Your task to perform on an android device: open app "File Manager" Image 0: 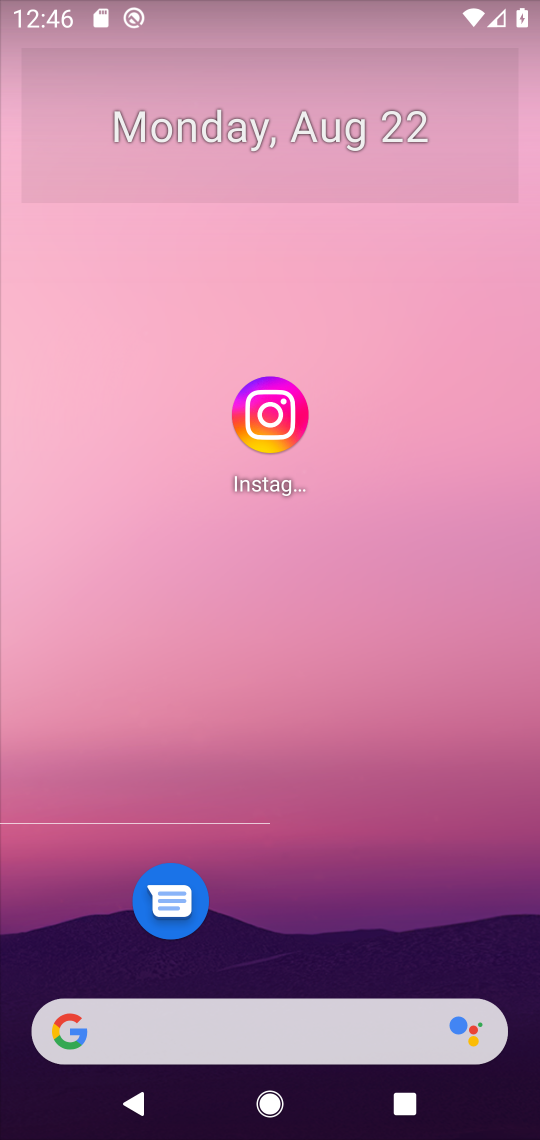
Step 0: drag from (386, 946) to (416, 119)
Your task to perform on an android device: open app "File Manager" Image 1: 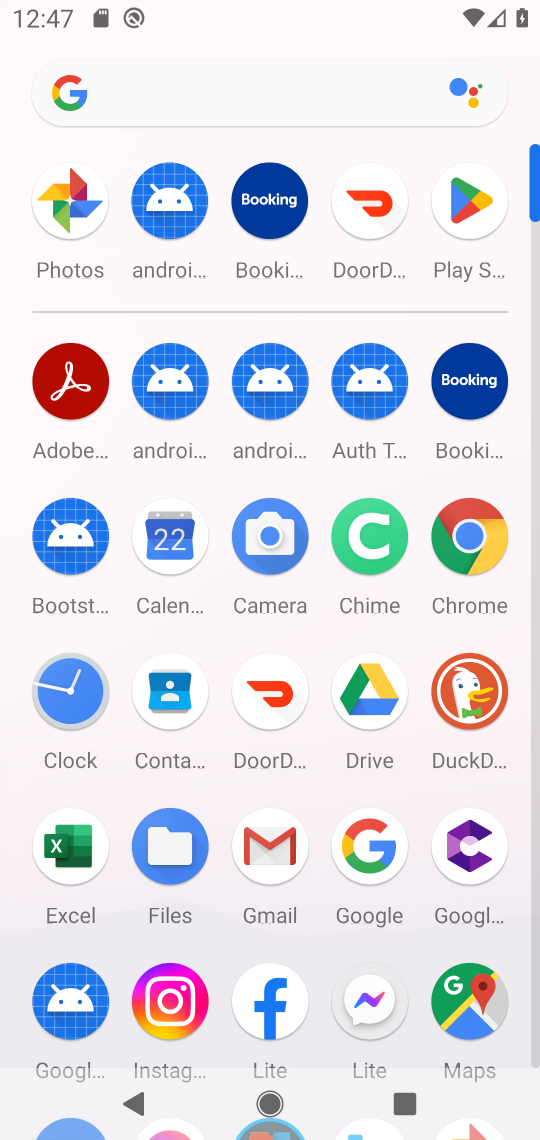
Step 1: click (437, 186)
Your task to perform on an android device: open app "File Manager" Image 2: 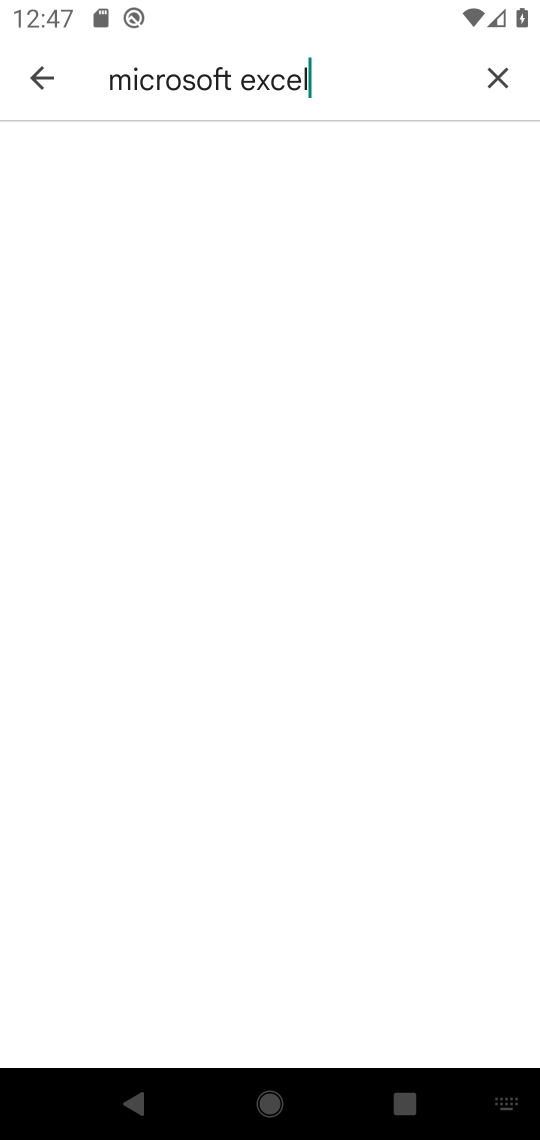
Step 2: click (486, 76)
Your task to perform on an android device: open app "File Manager" Image 3: 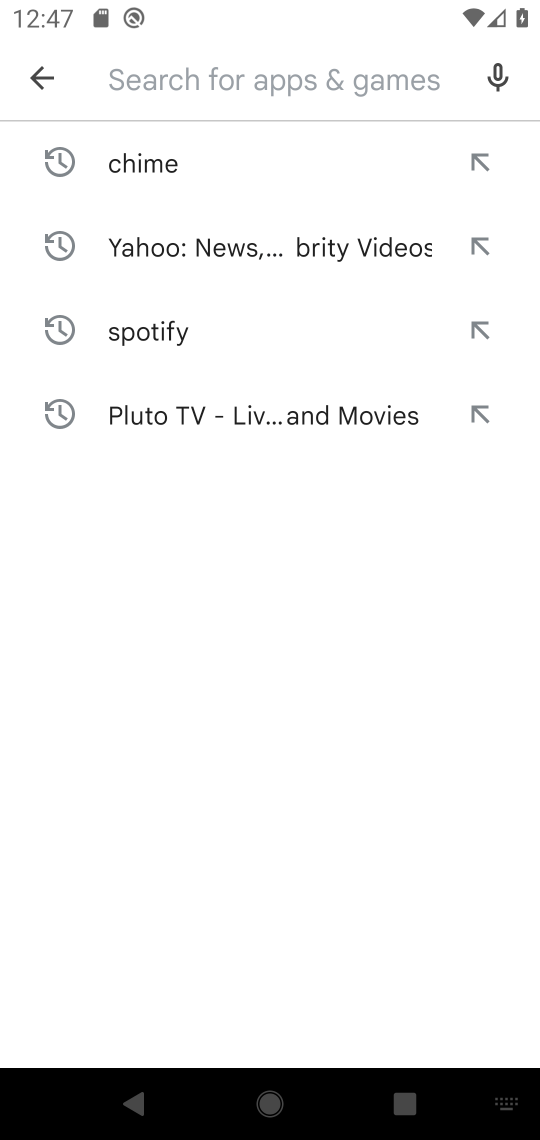
Step 3: type "file manger"
Your task to perform on an android device: open app "File Manager" Image 4: 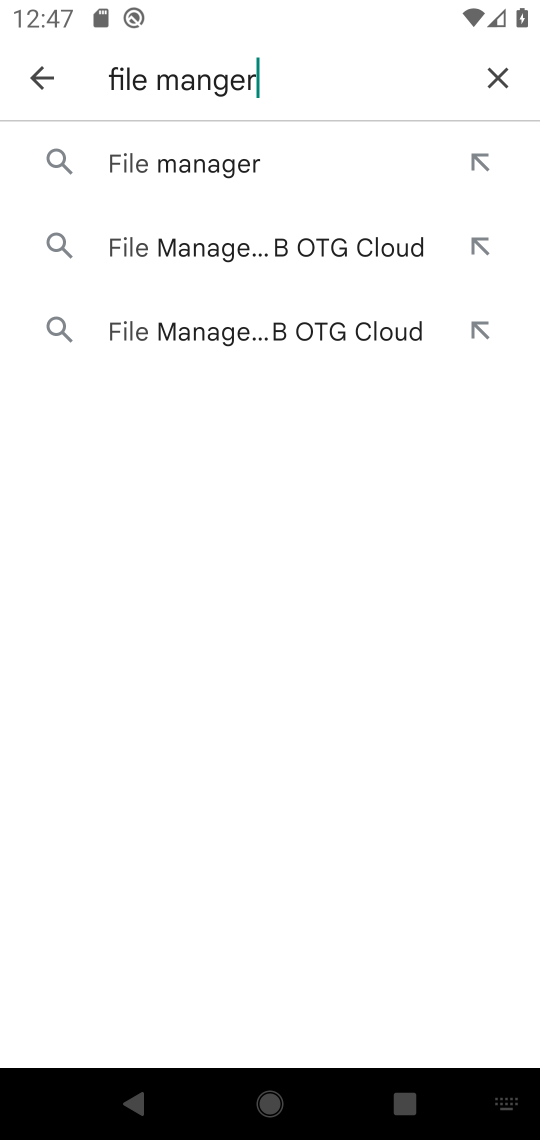
Step 4: click (235, 134)
Your task to perform on an android device: open app "File Manager" Image 5: 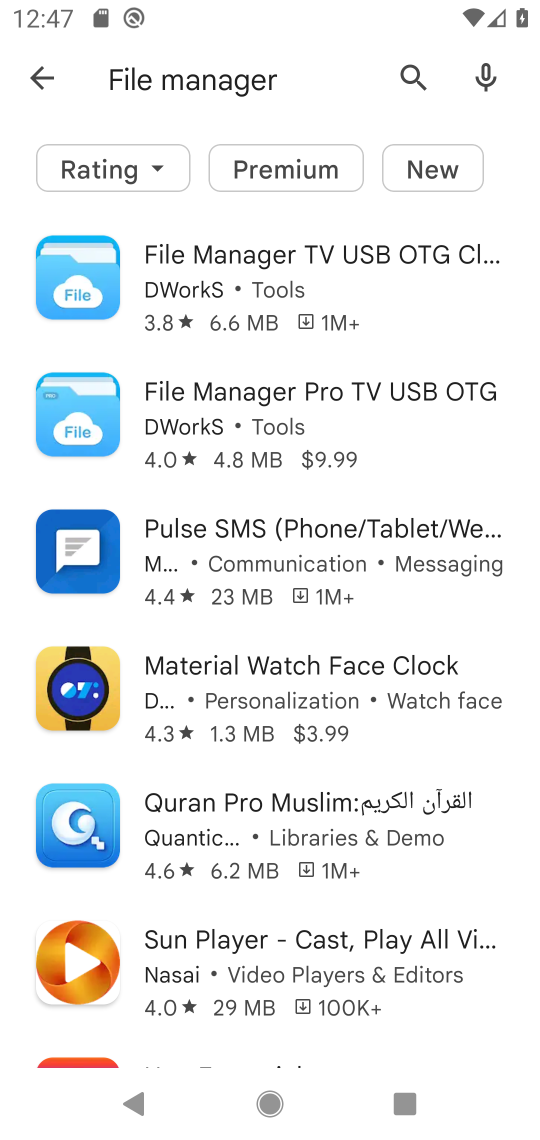
Step 5: click (323, 260)
Your task to perform on an android device: open app "File Manager" Image 6: 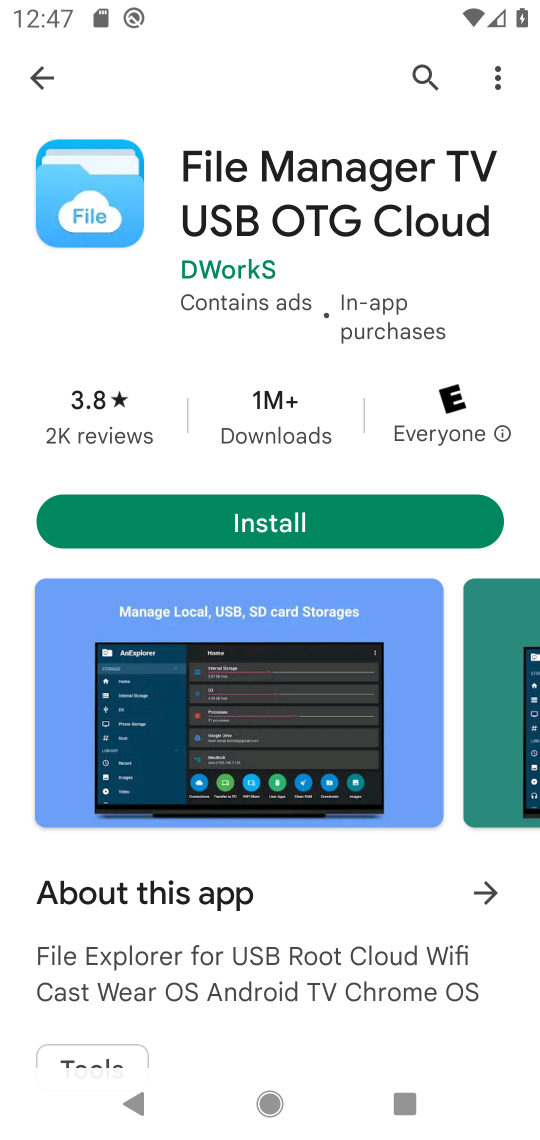
Step 6: click (318, 526)
Your task to perform on an android device: open app "File Manager" Image 7: 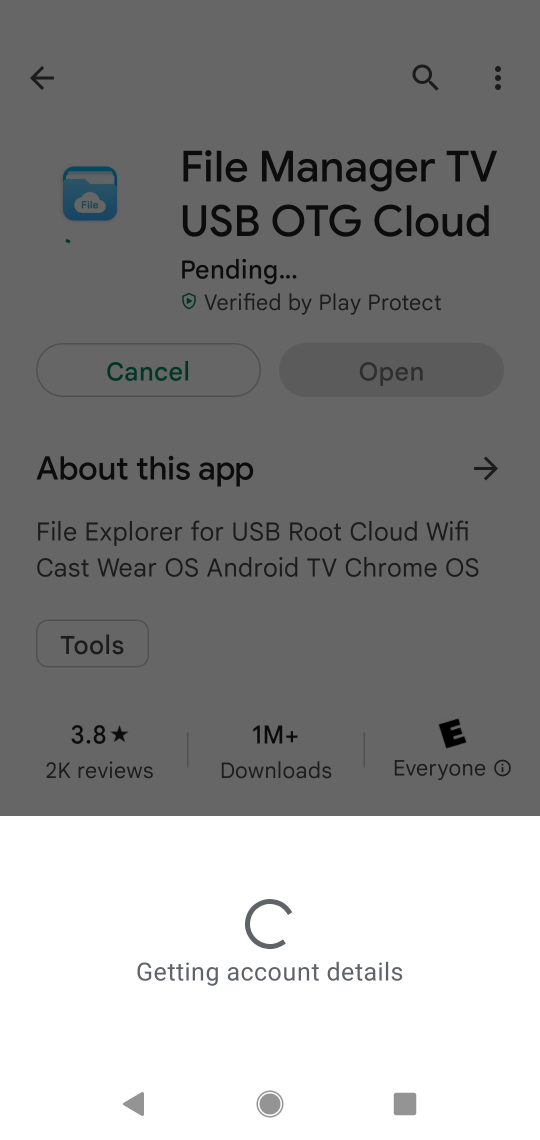
Step 7: task complete